Your task to perform on an android device: Open my contact list Image 0: 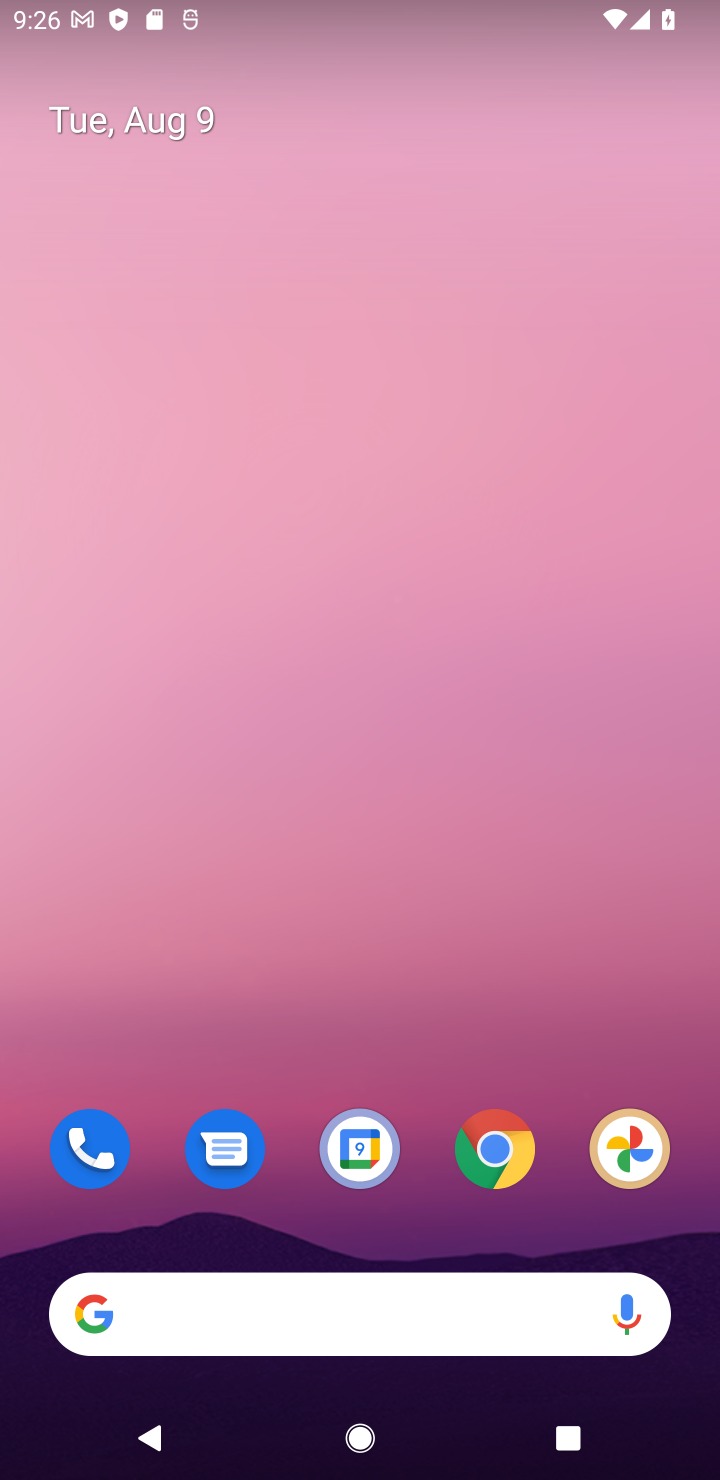
Step 0: drag from (246, 1259) to (454, 155)
Your task to perform on an android device: Open my contact list Image 1: 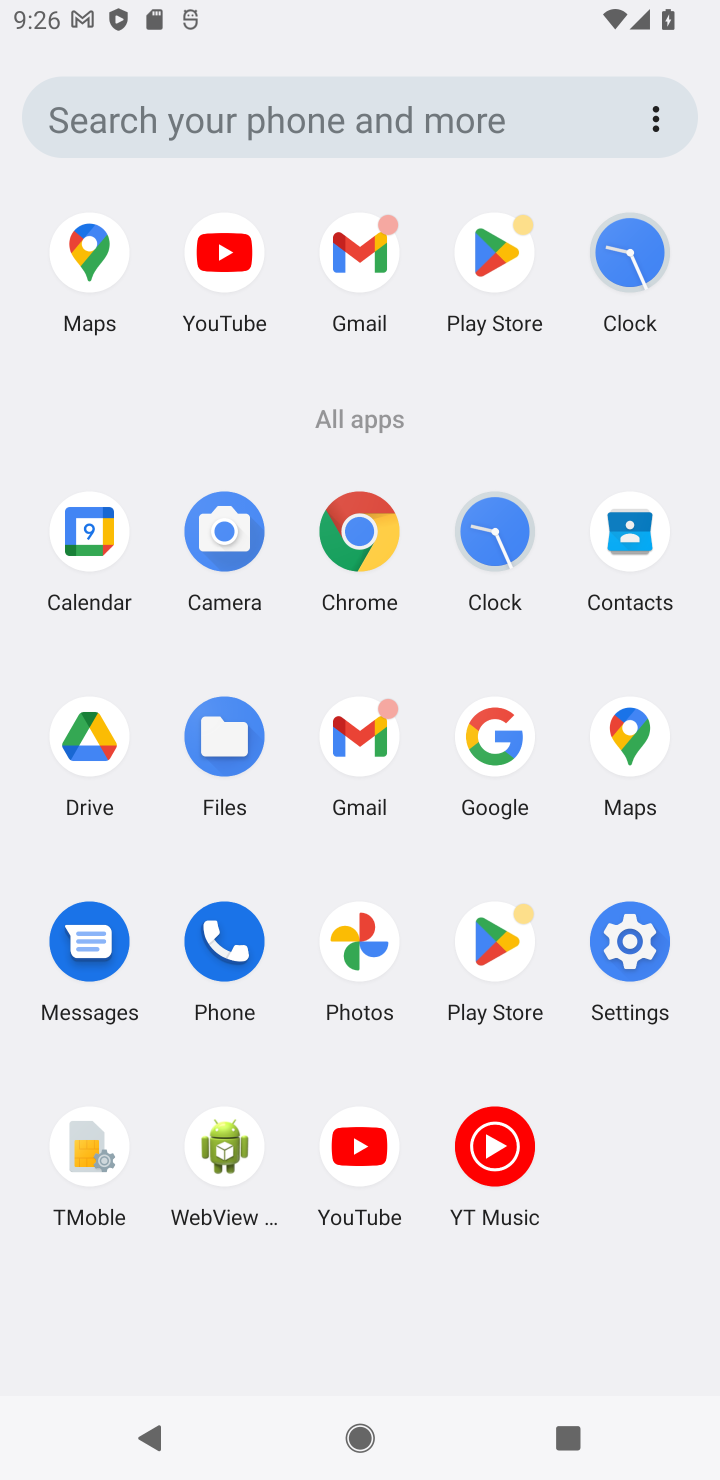
Step 1: click (640, 549)
Your task to perform on an android device: Open my contact list Image 2: 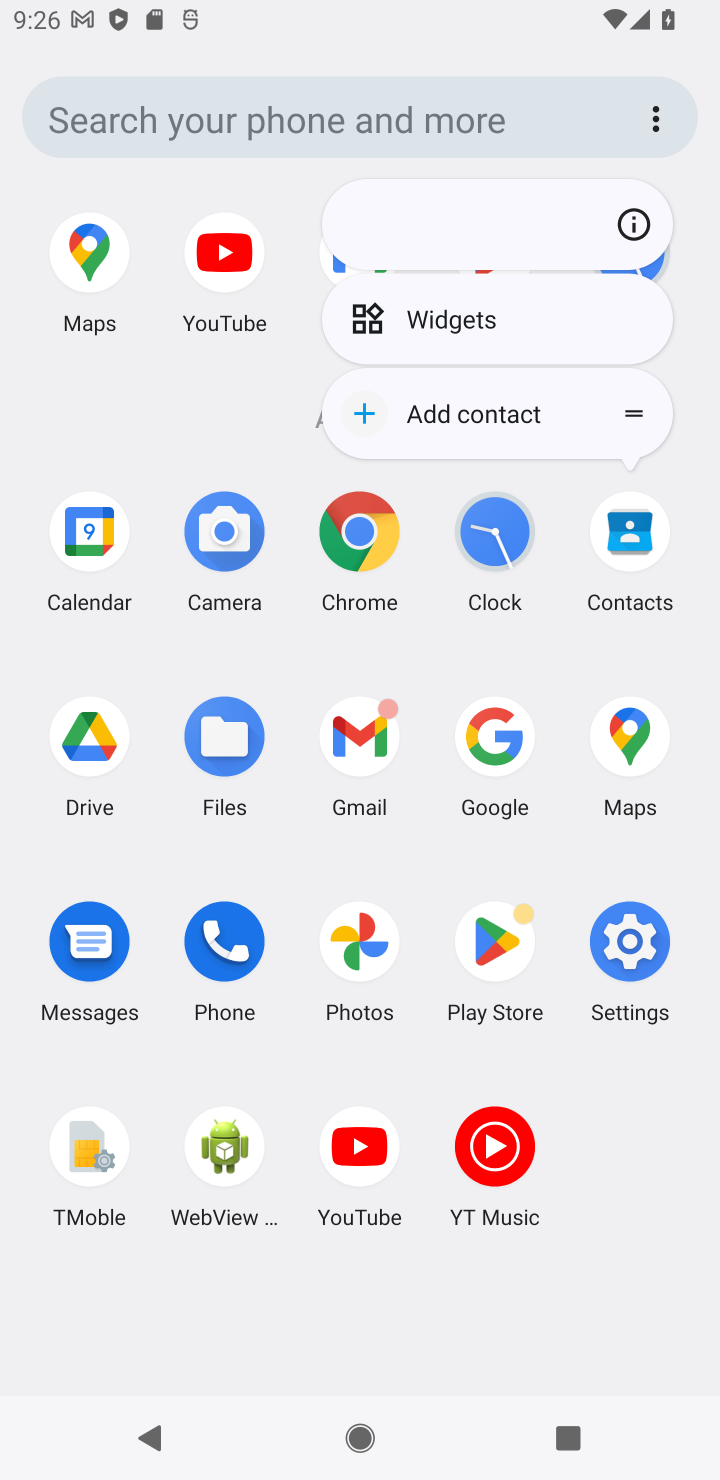
Step 2: click (640, 534)
Your task to perform on an android device: Open my contact list Image 3: 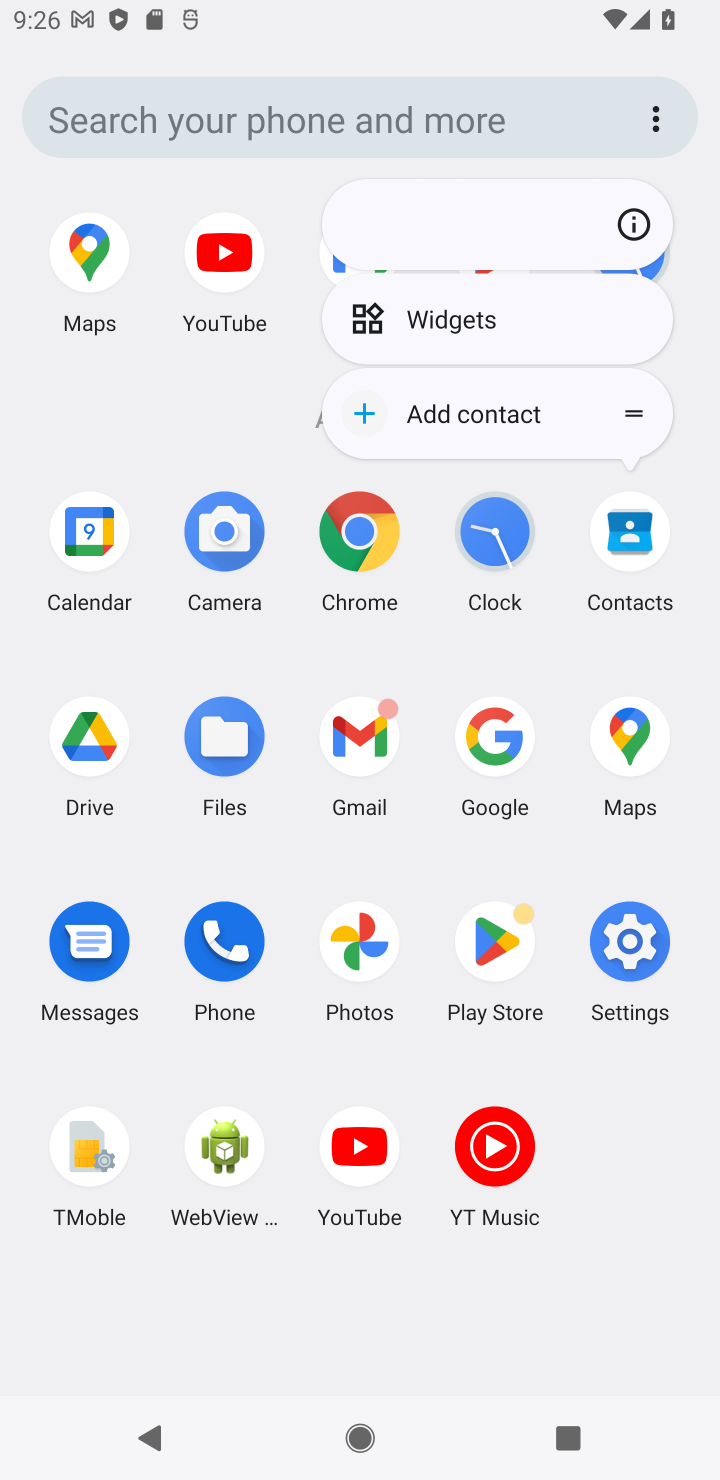
Step 3: click (640, 534)
Your task to perform on an android device: Open my contact list Image 4: 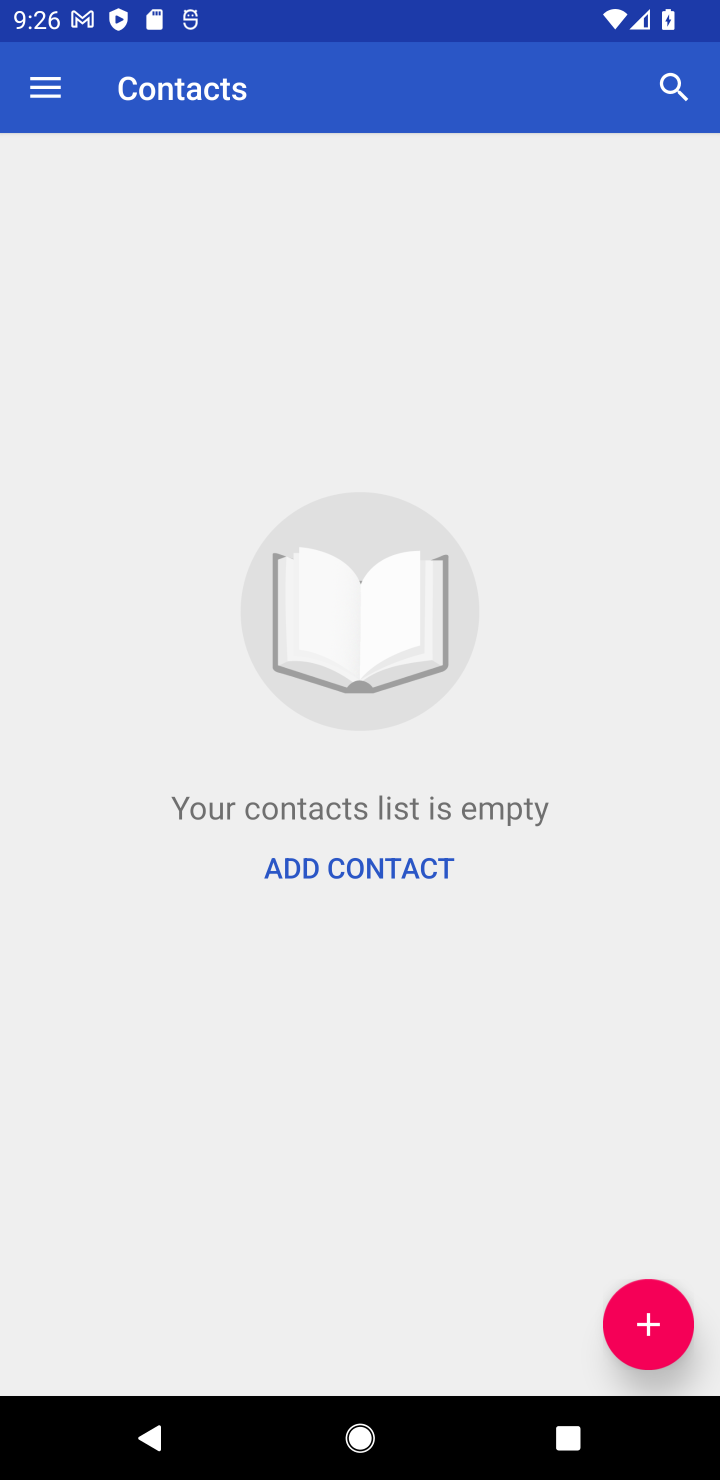
Step 4: task complete